Your task to perform on an android device: toggle notifications settings in the gmail app Image 0: 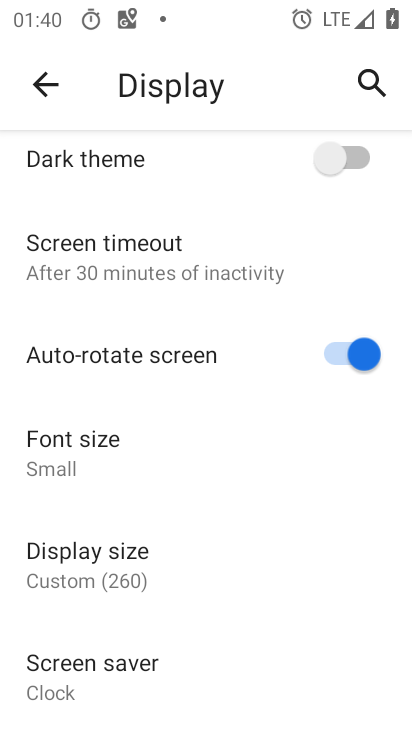
Step 0: press home button
Your task to perform on an android device: toggle notifications settings in the gmail app Image 1: 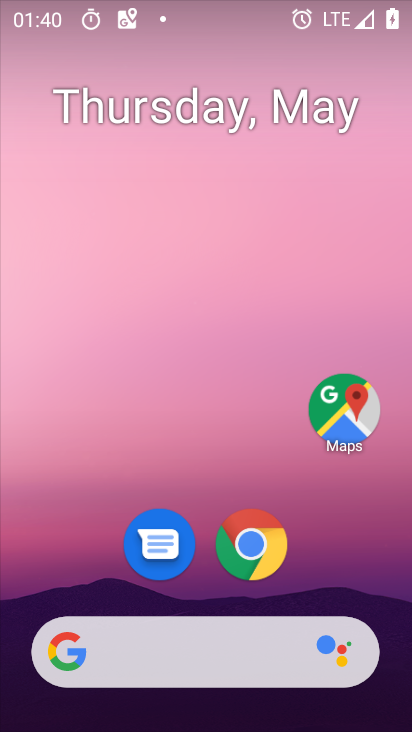
Step 1: drag from (386, 567) to (375, 203)
Your task to perform on an android device: toggle notifications settings in the gmail app Image 2: 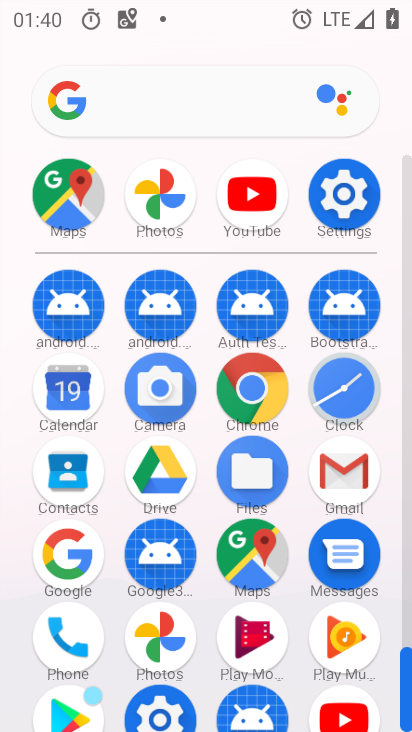
Step 2: click (359, 480)
Your task to perform on an android device: toggle notifications settings in the gmail app Image 3: 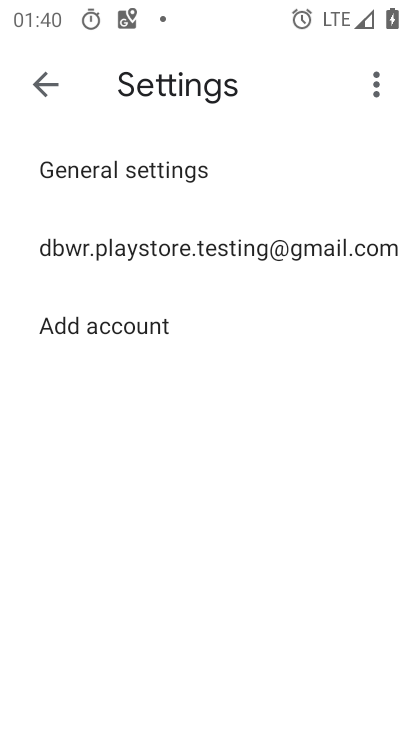
Step 3: click (343, 261)
Your task to perform on an android device: toggle notifications settings in the gmail app Image 4: 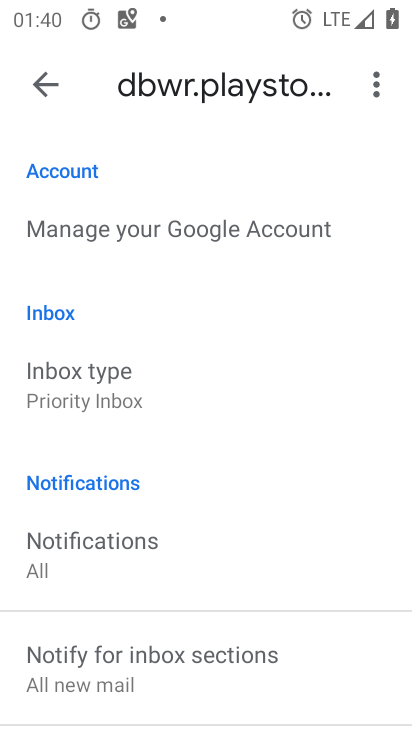
Step 4: drag from (312, 573) to (308, 446)
Your task to perform on an android device: toggle notifications settings in the gmail app Image 5: 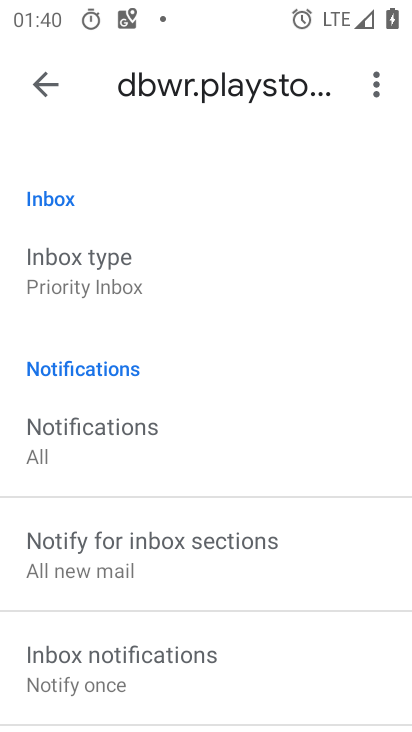
Step 5: drag from (311, 636) to (321, 502)
Your task to perform on an android device: toggle notifications settings in the gmail app Image 6: 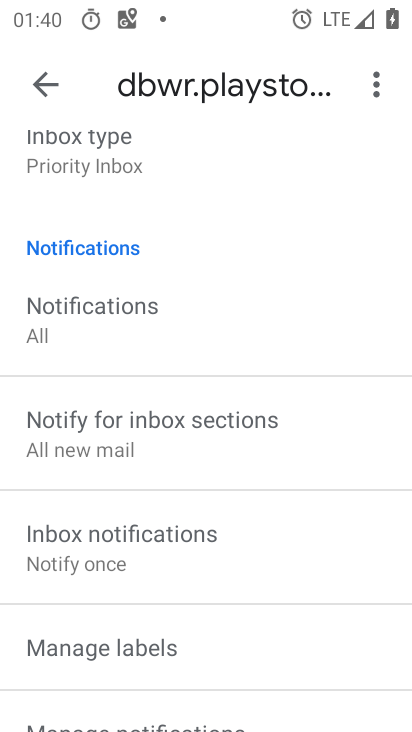
Step 6: drag from (319, 653) to (318, 552)
Your task to perform on an android device: toggle notifications settings in the gmail app Image 7: 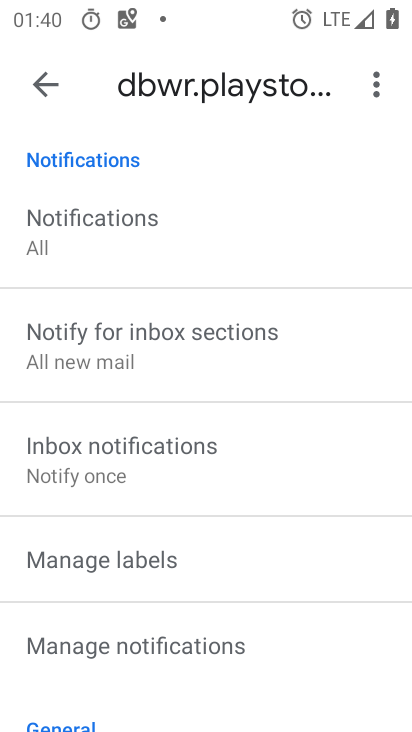
Step 7: drag from (322, 654) to (323, 557)
Your task to perform on an android device: toggle notifications settings in the gmail app Image 8: 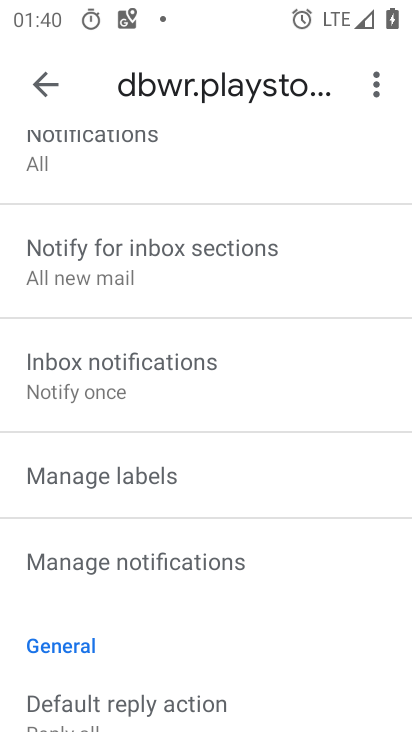
Step 8: drag from (325, 650) to (312, 527)
Your task to perform on an android device: toggle notifications settings in the gmail app Image 9: 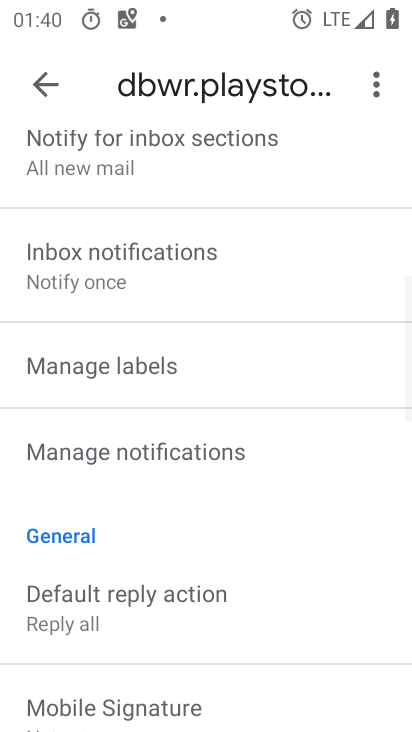
Step 9: drag from (316, 641) to (318, 545)
Your task to perform on an android device: toggle notifications settings in the gmail app Image 10: 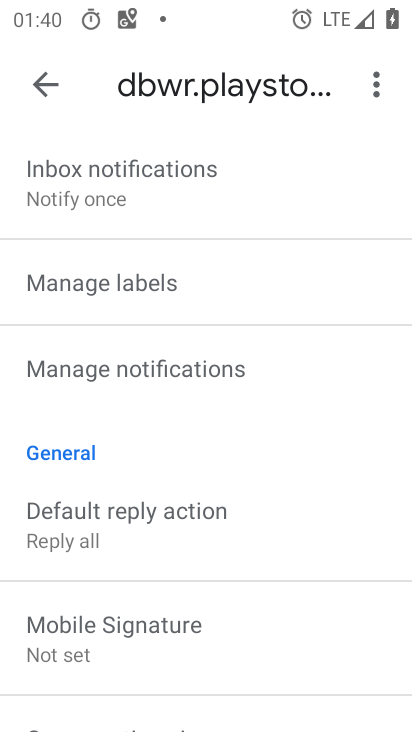
Step 10: drag from (312, 671) to (309, 537)
Your task to perform on an android device: toggle notifications settings in the gmail app Image 11: 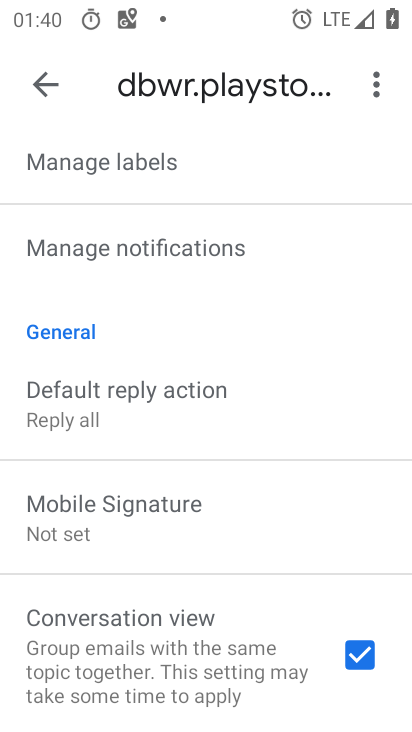
Step 11: drag from (296, 690) to (284, 516)
Your task to perform on an android device: toggle notifications settings in the gmail app Image 12: 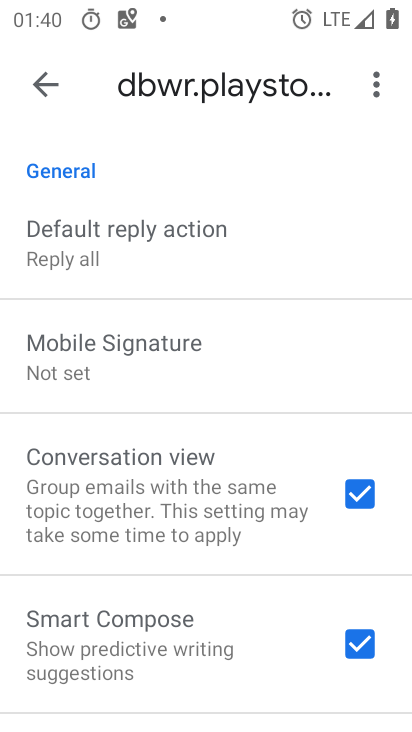
Step 12: drag from (289, 634) to (288, 499)
Your task to perform on an android device: toggle notifications settings in the gmail app Image 13: 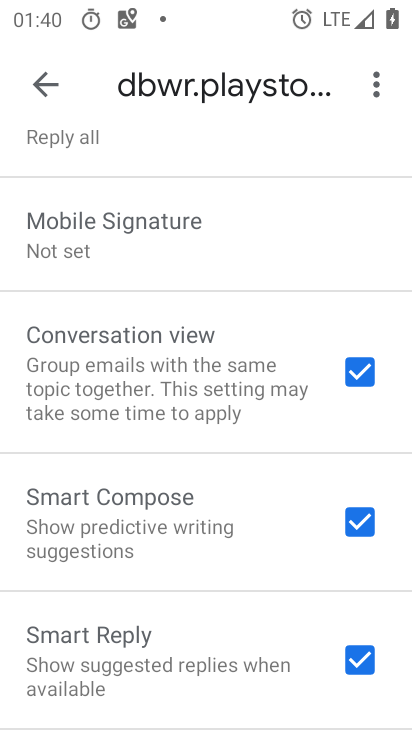
Step 13: drag from (306, 627) to (285, 447)
Your task to perform on an android device: toggle notifications settings in the gmail app Image 14: 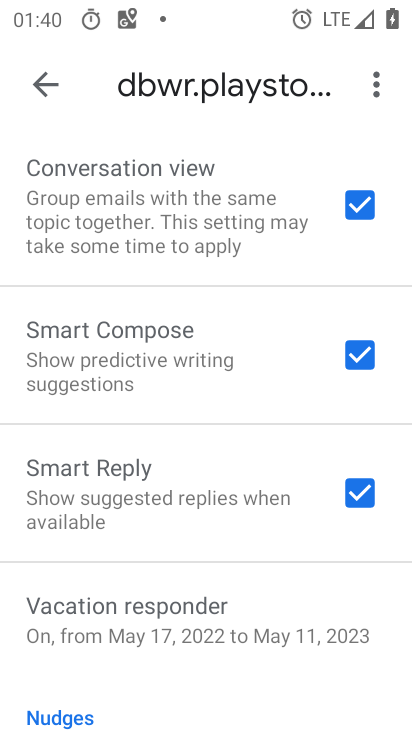
Step 14: drag from (265, 658) to (261, 419)
Your task to perform on an android device: toggle notifications settings in the gmail app Image 15: 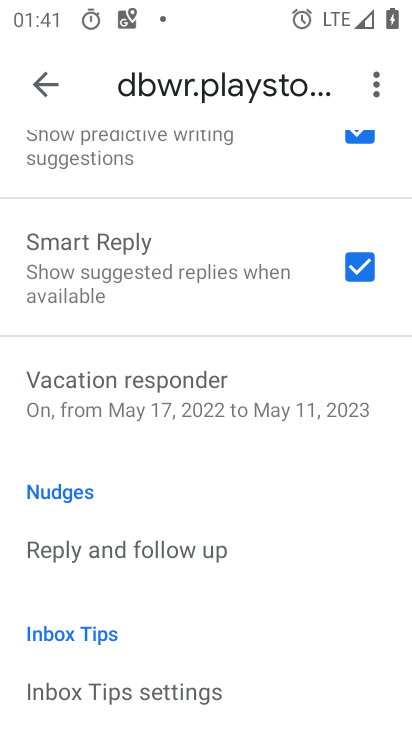
Step 15: drag from (260, 225) to (252, 506)
Your task to perform on an android device: toggle notifications settings in the gmail app Image 16: 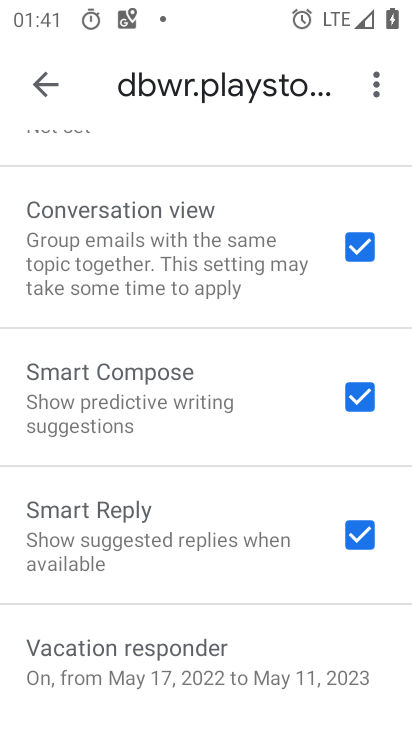
Step 16: drag from (276, 284) to (277, 468)
Your task to perform on an android device: toggle notifications settings in the gmail app Image 17: 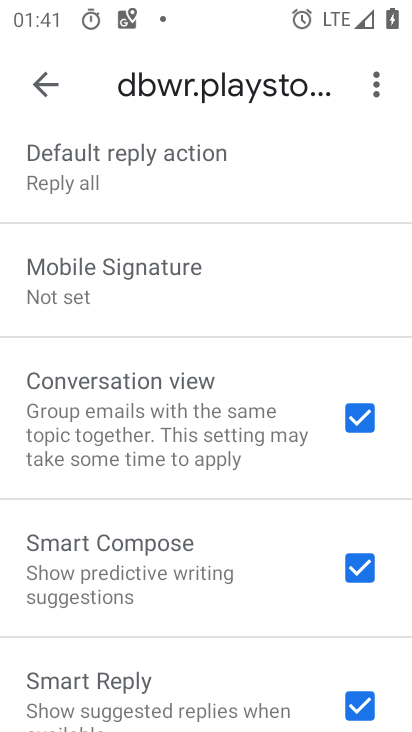
Step 17: drag from (285, 247) to (281, 414)
Your task to perform on an android device: toggle notifications settings in the gmail app Image 18: 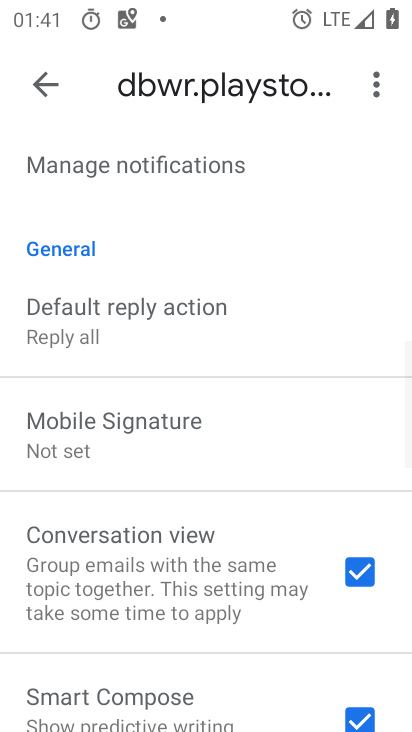
Step 18: drag from (282, 240) to (273, 428)
Your task to perform on an android device: toggle notifications settings in the gmail app Image 19: 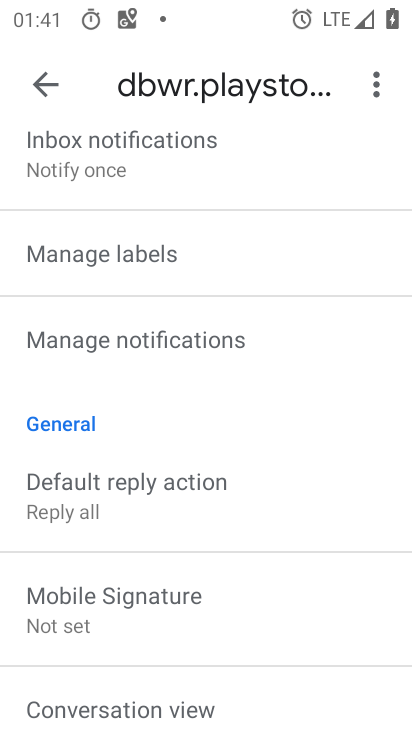
Step 19: click (209, 327)
Your task to perform on an android device: toggle notifications settings in the gmail app Image 20: 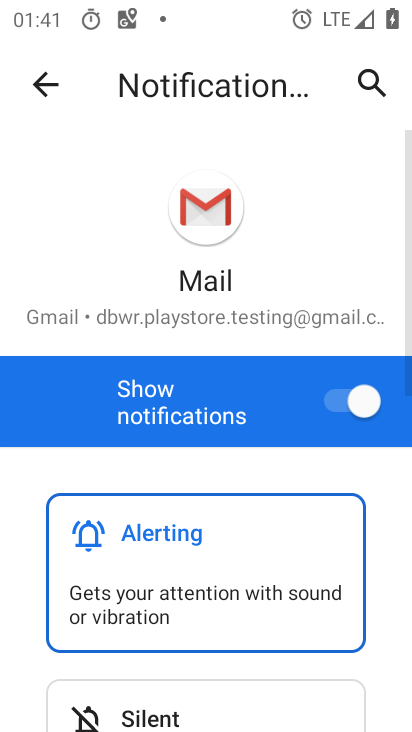
Step 20: click (348, 400)
Your task to perform on an android device: toggle notifications settings in the gmail app Image 21: 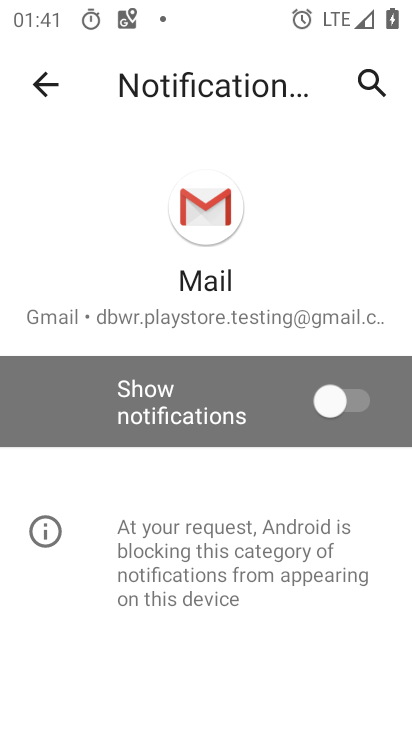
Step 21: task complete